Your task to perform on an android device: turn vacation reply on in the gmail app Image 0: 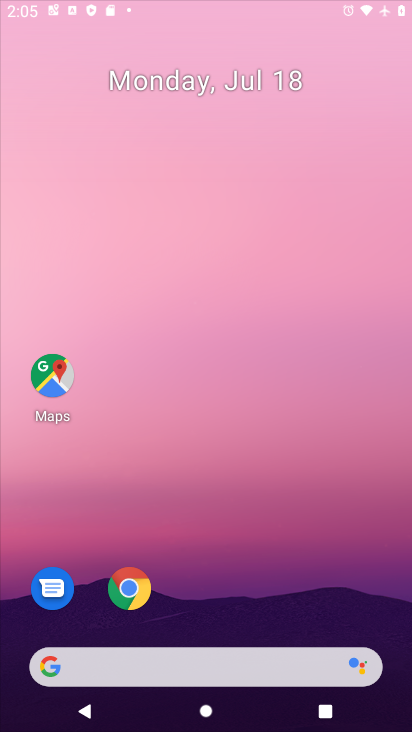
Step 0: press home button
Your task to perform on an android device: turn vacation reply on in the gmail app Image 1: 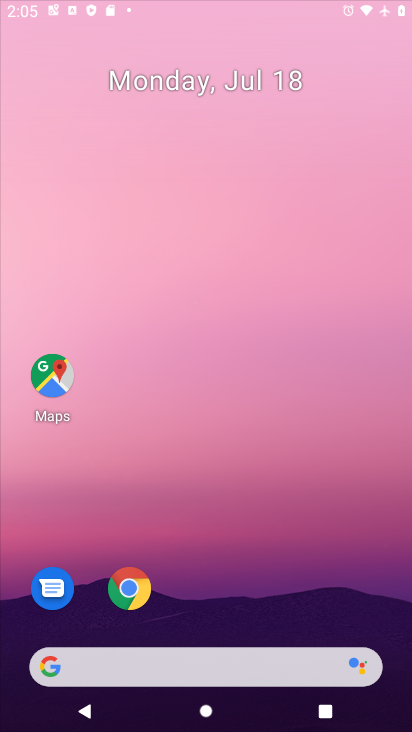
Step 1: drag from (252, 677) to (353, 262)
Your task to perform on an android device: turn vacation reply on in the gmail app Image 2: 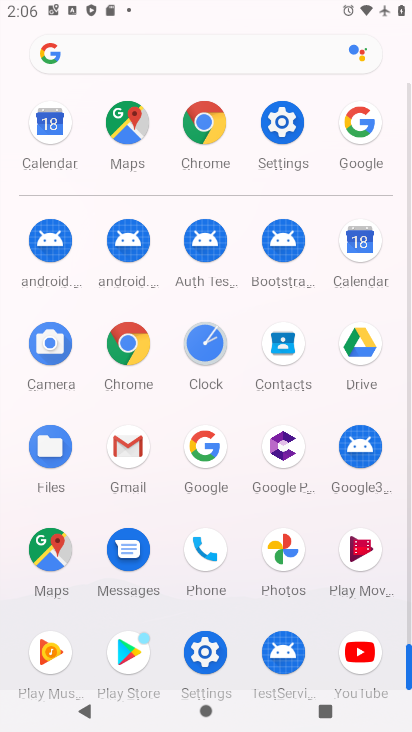
Step 2: click (135, 465)
Your task to perform on an android device: turn vacation reply on in the gmail app Image 3: 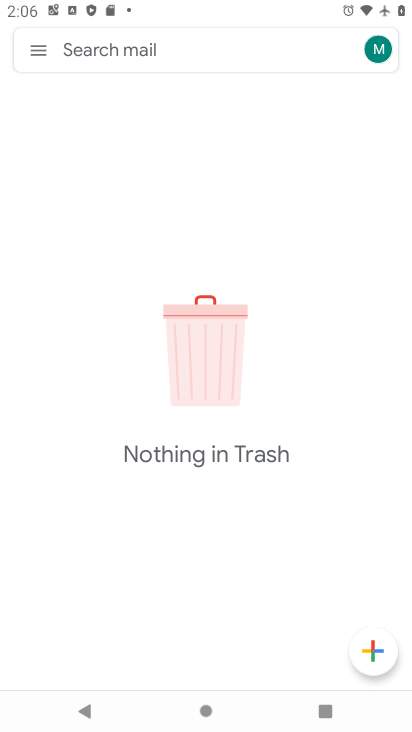
Step 3: click (43, 47)
Your task to perform on an android device: turn vacation reply on in the gmail app Image 4: 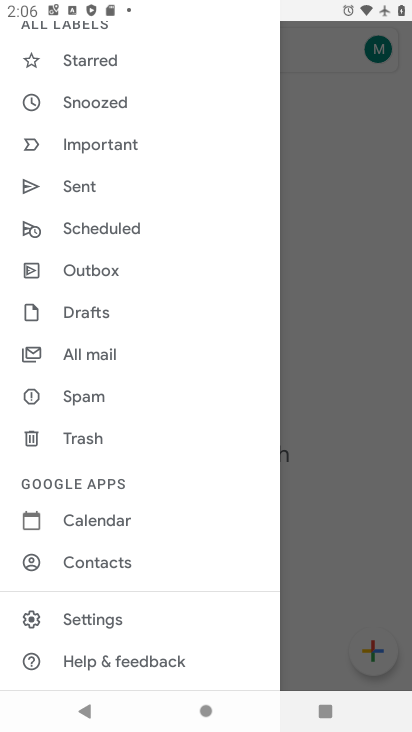
Step 4: click (85, 616)
Your task to perform on an android device: turn vacation reply on in the gmail app Image 5: 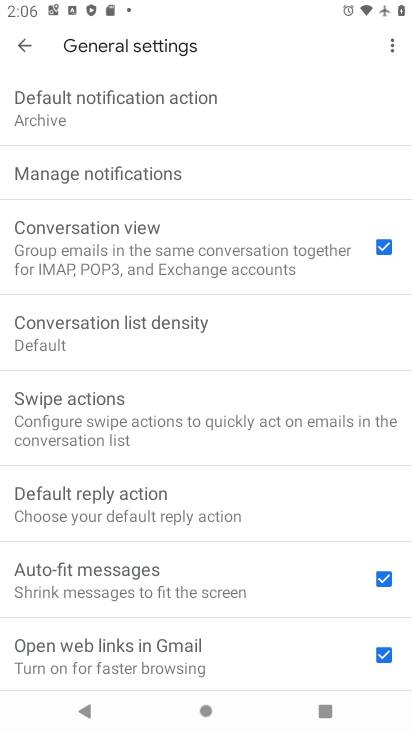
Step 5: click (22, 47)
Your task to perform on an android device: turn vacation reply on in the gmail app Image 6: 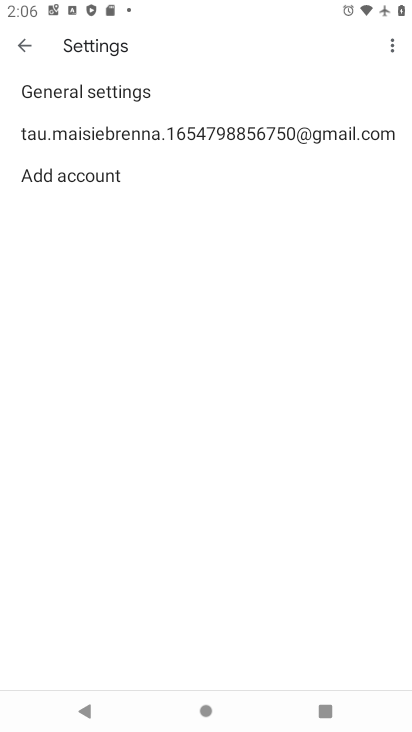
Step 6: click (144, 141)
Your task to perform on an android device: turn vacation reply on in the gmail app Image 7: 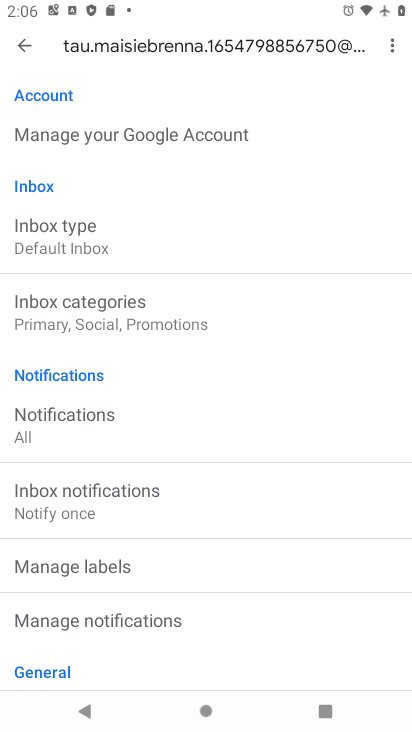
Step 7: drag from (129, 524) to (142, 352)
Your task to perform on an android device: turn vacation reply on in the gmail app Image 8: 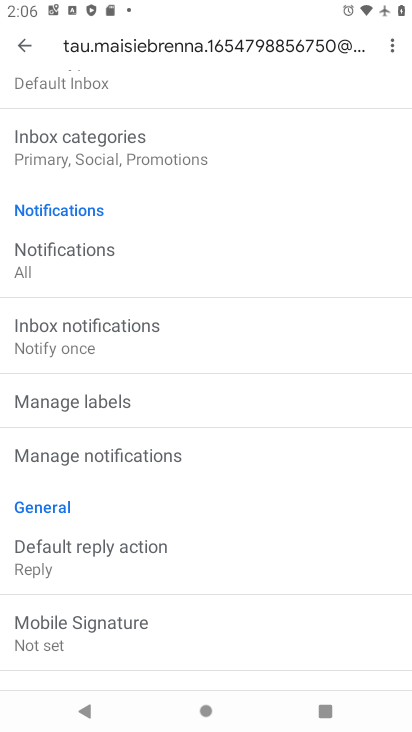
Step 8: drag from (120, 599) to (153, 354)
Your task to perform on an android device: turn vacation reply on in the gmail app Image 9: 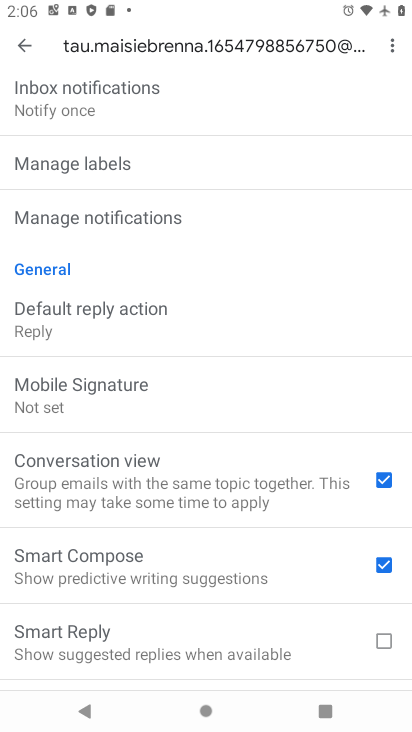
Step 9: drag from (138, 530) to (173, 321)
Your task to perform on an android device: turn vacation reply on in the gmail app Image 10: 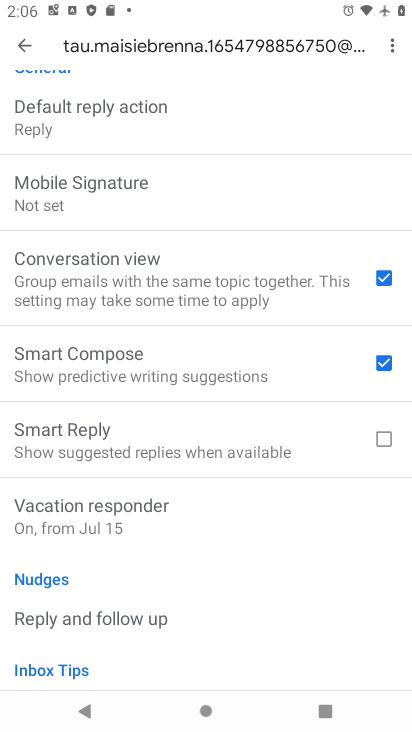
Step 10: click (131, 527)
Your task to perform on an android device: turn vacation reply on in the gmail app Image 11: 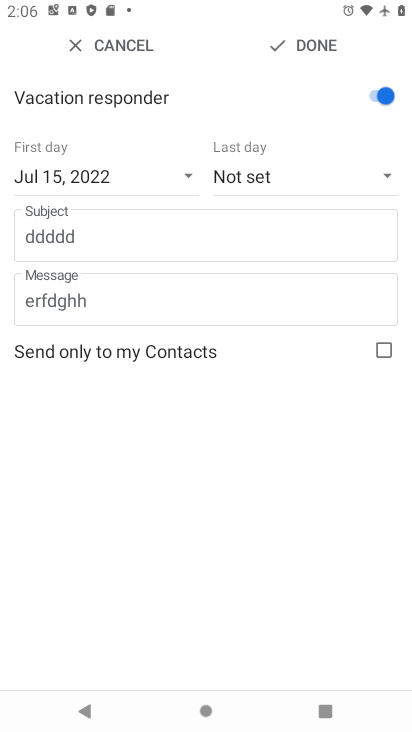
Step 11: task complete